Your task to perform on an android device: Open internet settings Image 0: 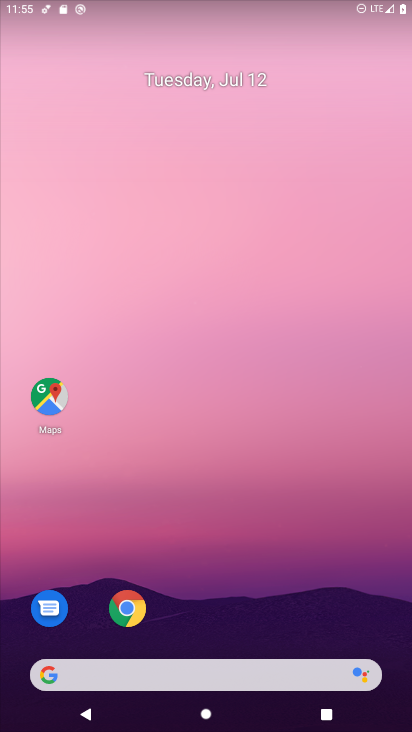
Step 0: drag from (193, 46) to (252, 526)
Your task to perform on an android device: Open internet settings Image 1: 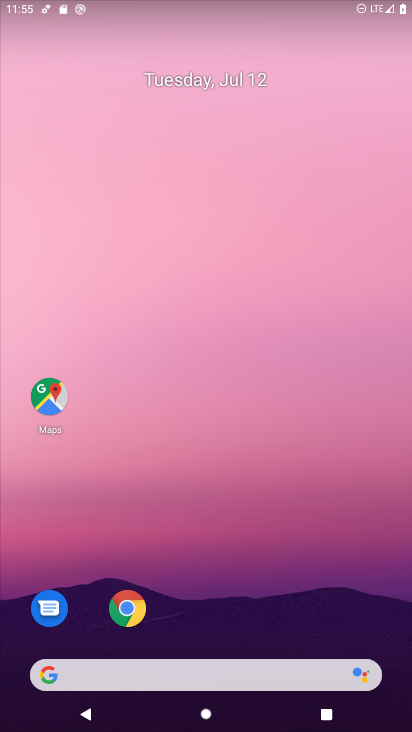
Step 1: drag from (185, 14) to (229, 571)
Your task to perform on an android device: Open internet settings Image 2: 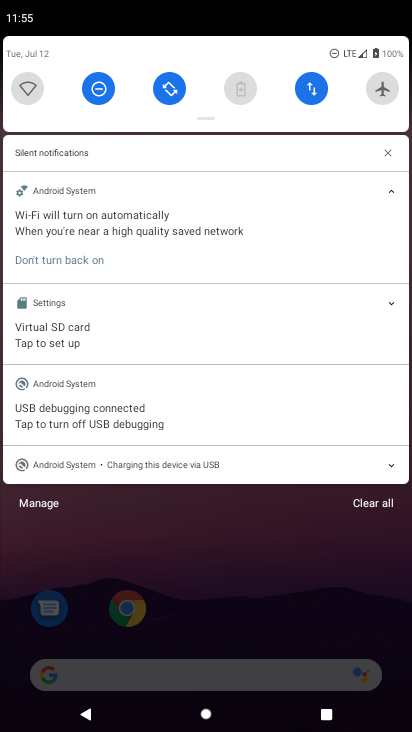
Step 2: click (311, 90)
Your task to perform on an android device: Open internet settings Image 3: 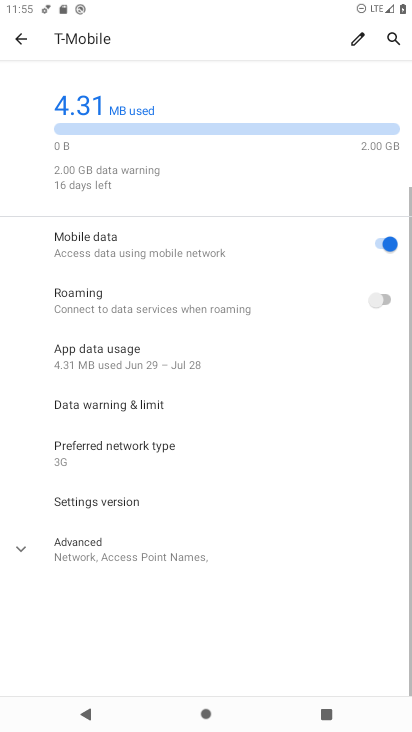
Step 3: task complete